Your task to perform on an android device: Search for "logitech g502" on costco.com, select the first entry, add it to the cart, then select checkout. Image 0: 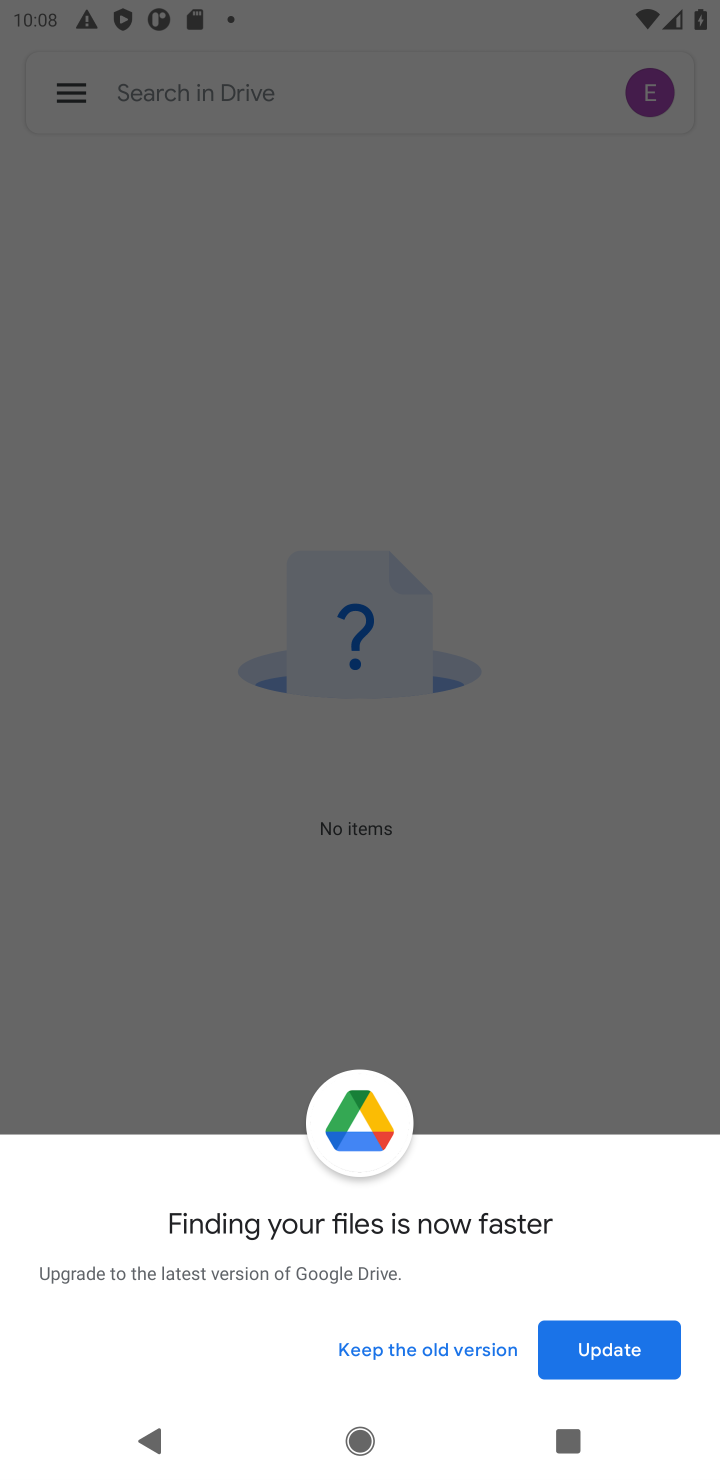
Step 0: press home button
Your task to perform on an android device: Search for "logitech g502" on costco.com, select the first entry, add it to the cart, then select checkout. Image 1: 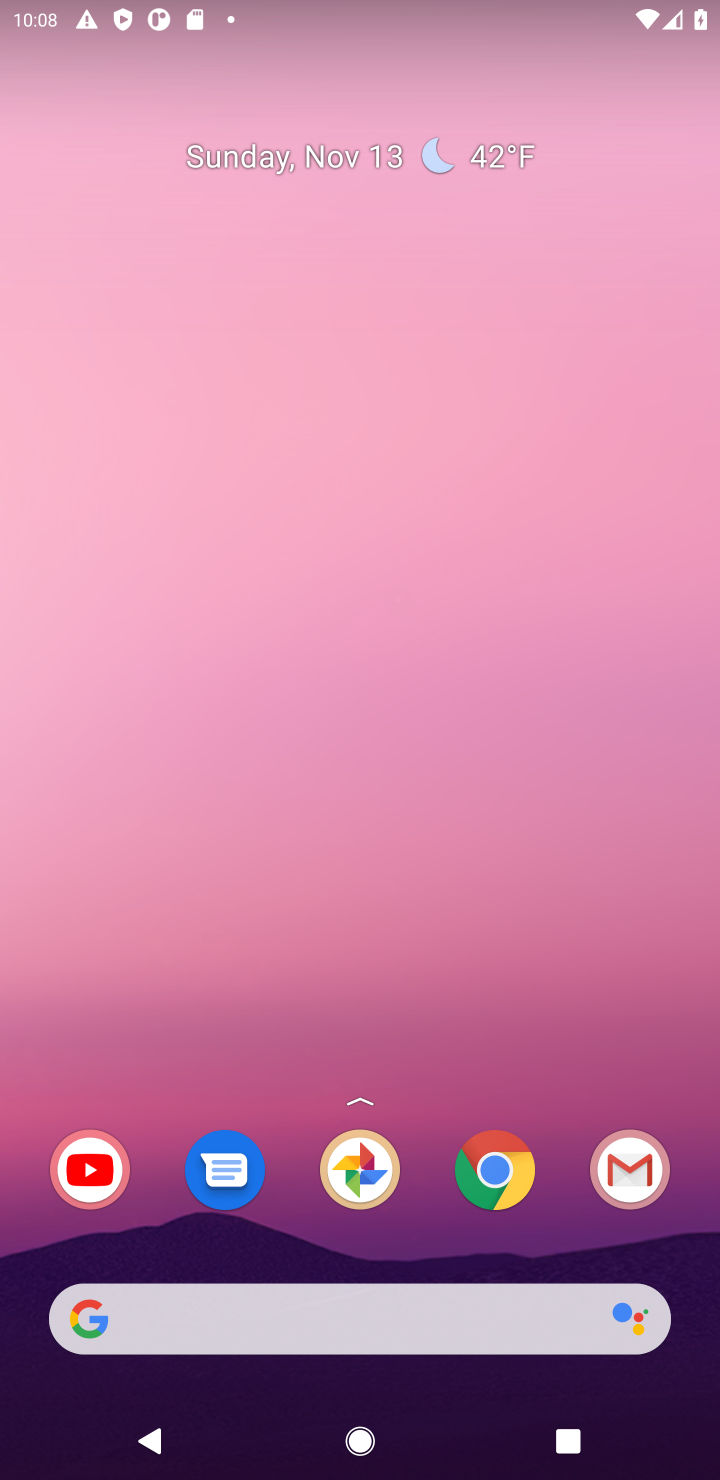
Step 1: drag from (399, 855) to (600, 19)
Your task to perform on an android device: Search for "logitech g502" on costco.com, select the first entry, add it to the cart, then select checkout. Image 2: 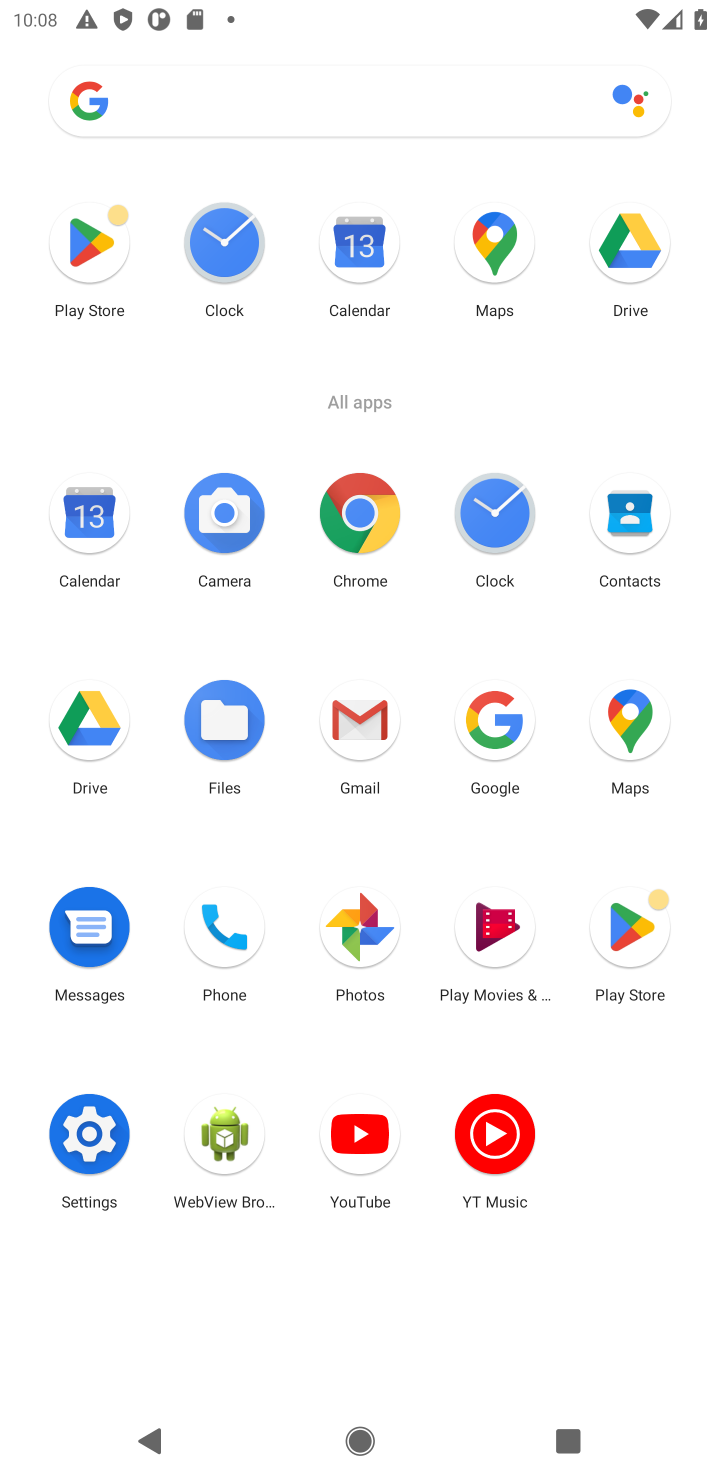
Step 2: click (326, 521)
Your task to perform on an android device: Search for "logitech g502" on costco.com, select the first entry, add it to the cart, then select checkout. Image 3: 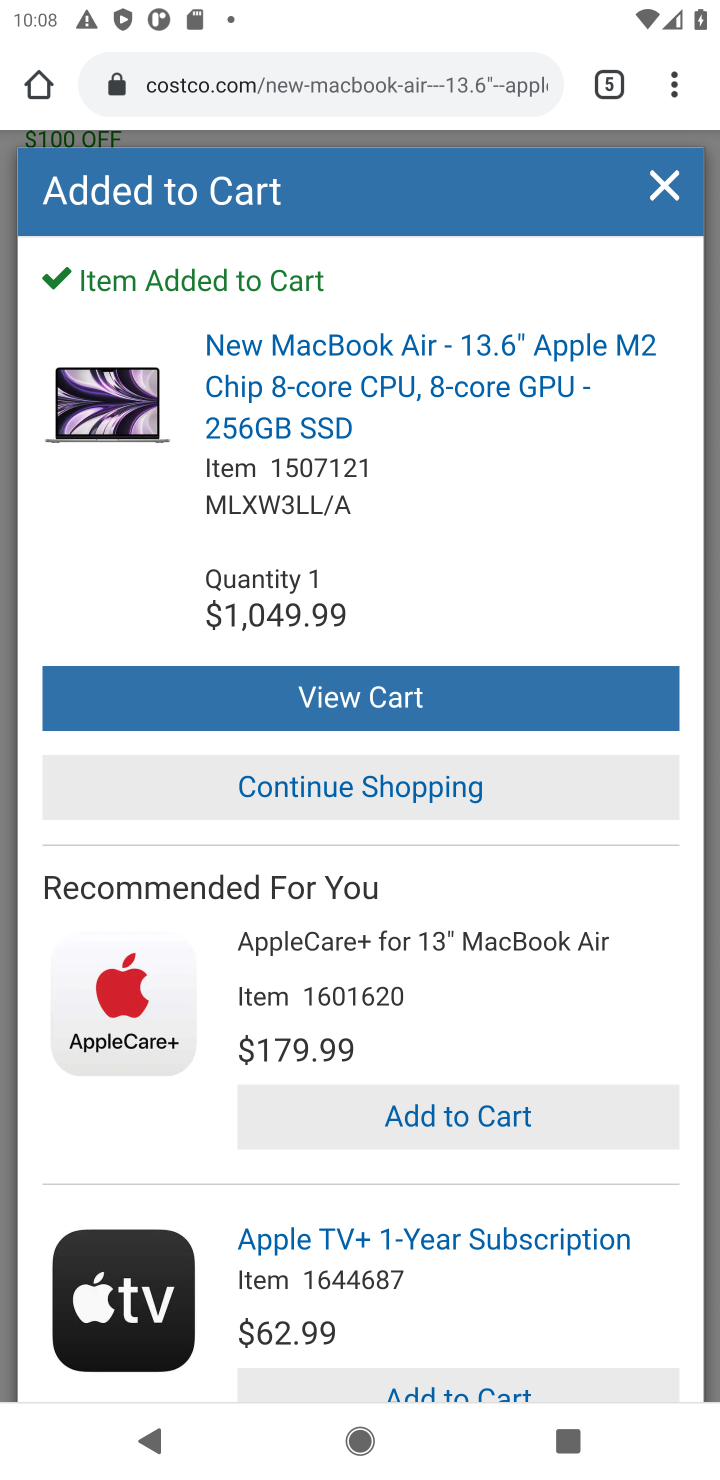
Step 3: click (319, 110)
Your task to perform on an android device: Search for "logitech g502" on costco.com, select the first entry, add it to the cart, then select checkout. Image 4: 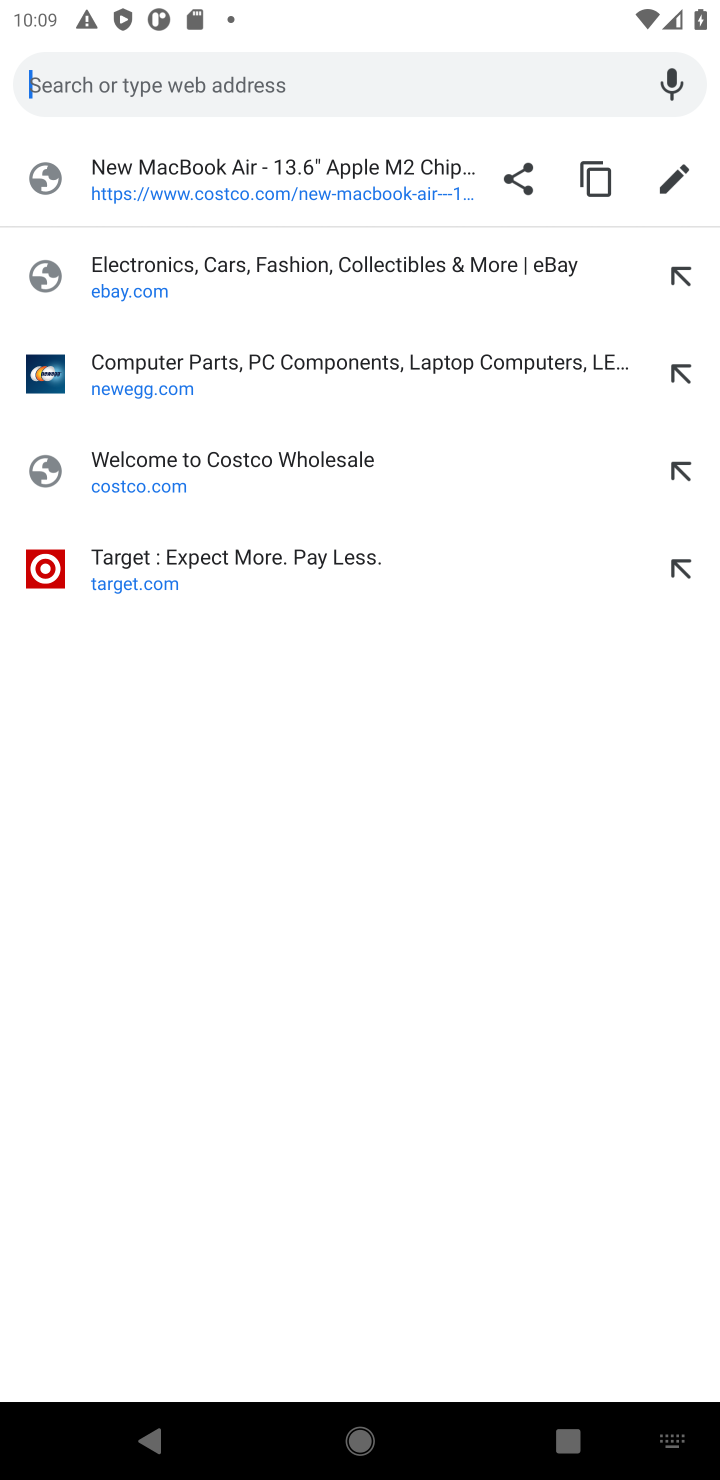
Step 4: type " costco.com"
Your task to perform on an android device: Search for "logitech g502" on costco.com, select the first entry, add it to the cart, then select checkout. Image 5: 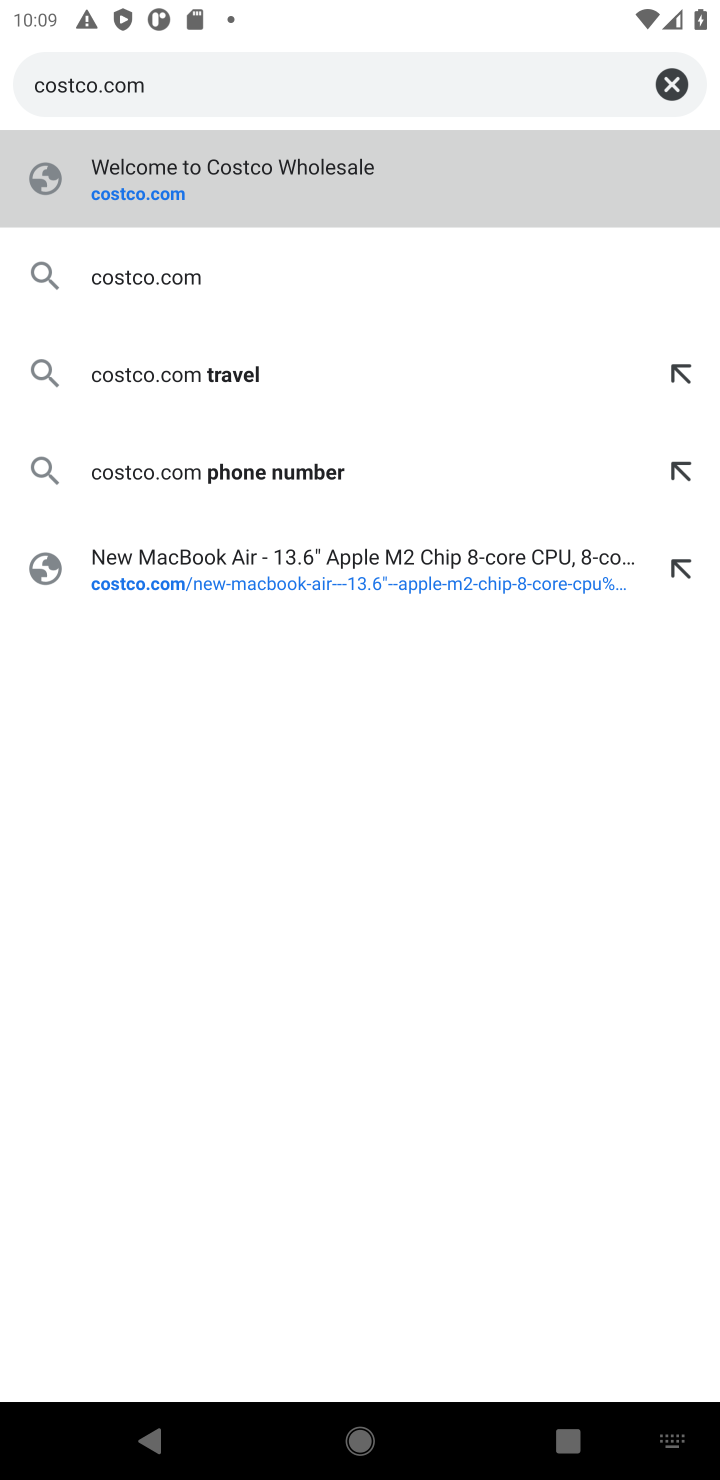
Step 5: press enter
Your task to perform on an android device: Search for "logitech g502" on costco.com, select the first entry, add it to the cart, then select checkout. Image 6: 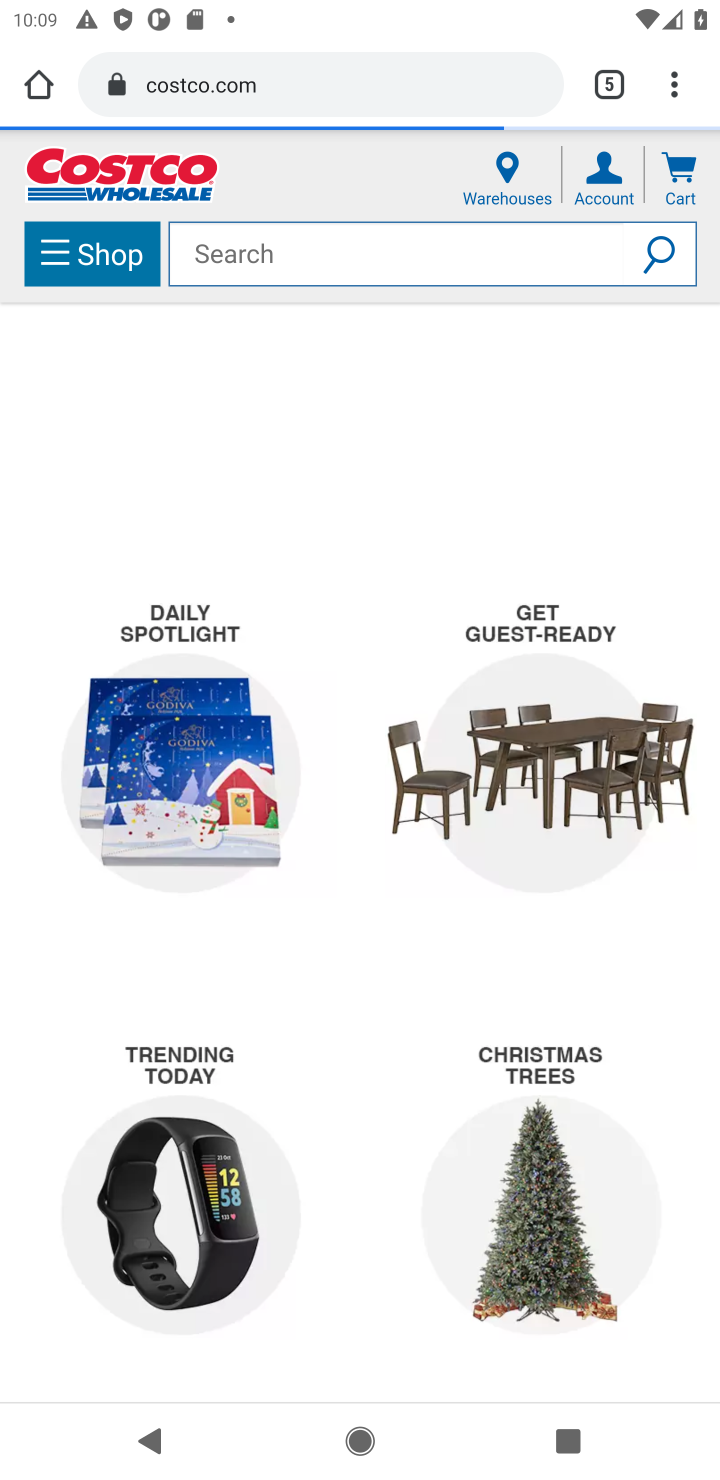
Step 6: click (237, 265)
Your task to perform on an android device: Search for "logitech g502" on costco.com, select the first entry, add it to the cart, then select checkout. Image 7: 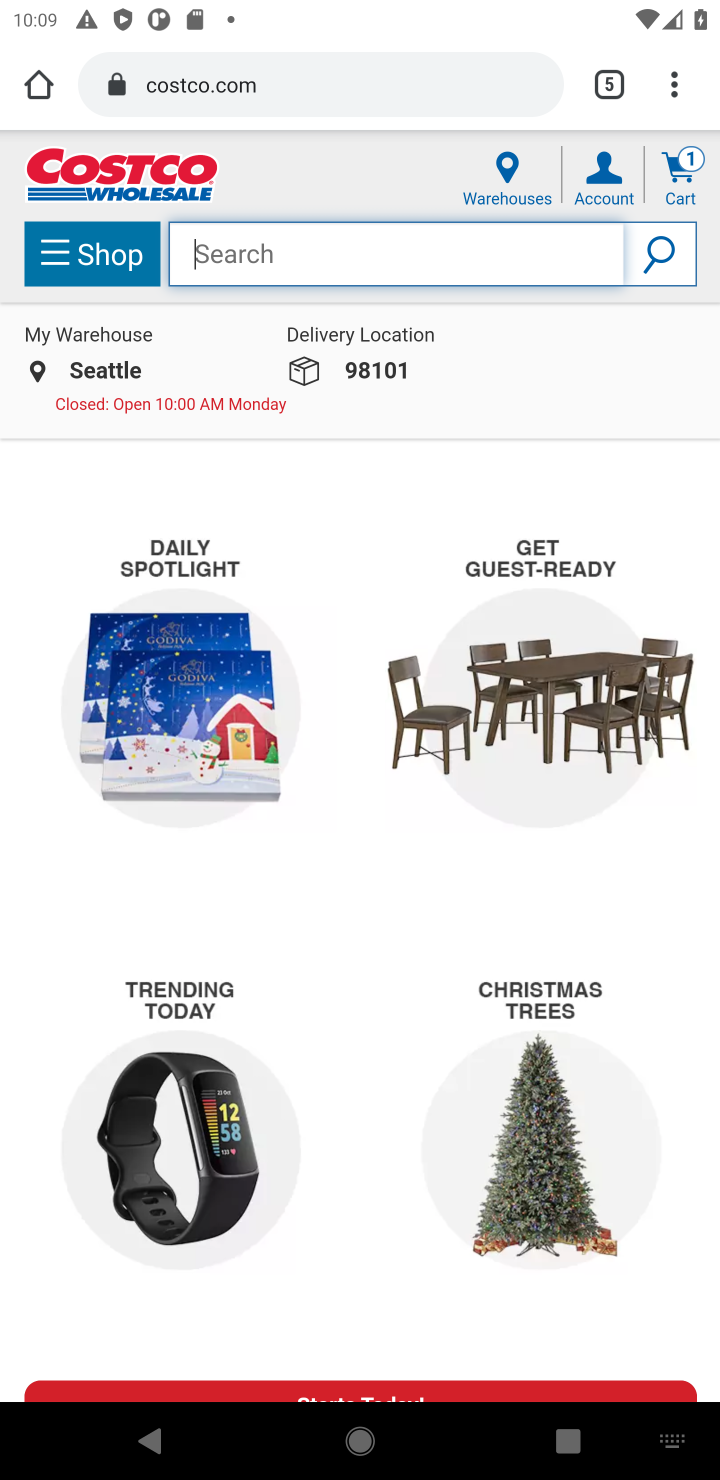
Step 7: type "logitech g502"
Your task to perform on an android device: Search for "logitech g502" on costco.com, select the first entry, add it to the cart, then select checkout. Image 8: 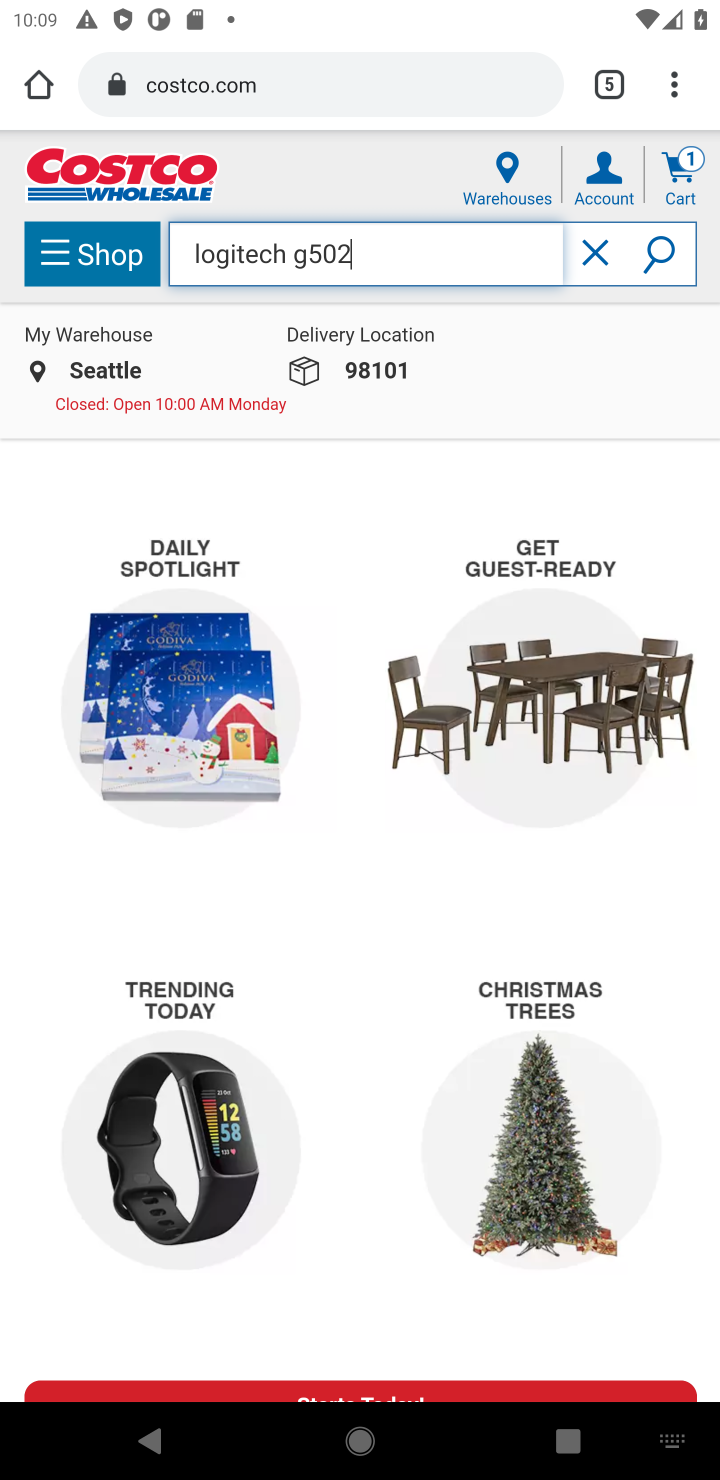
Step 8: press enter
Your task to perform on an android device: Search for "logitech g502" on costco.com, select the first entry, add it to the cart, then select checkout. Image 9: 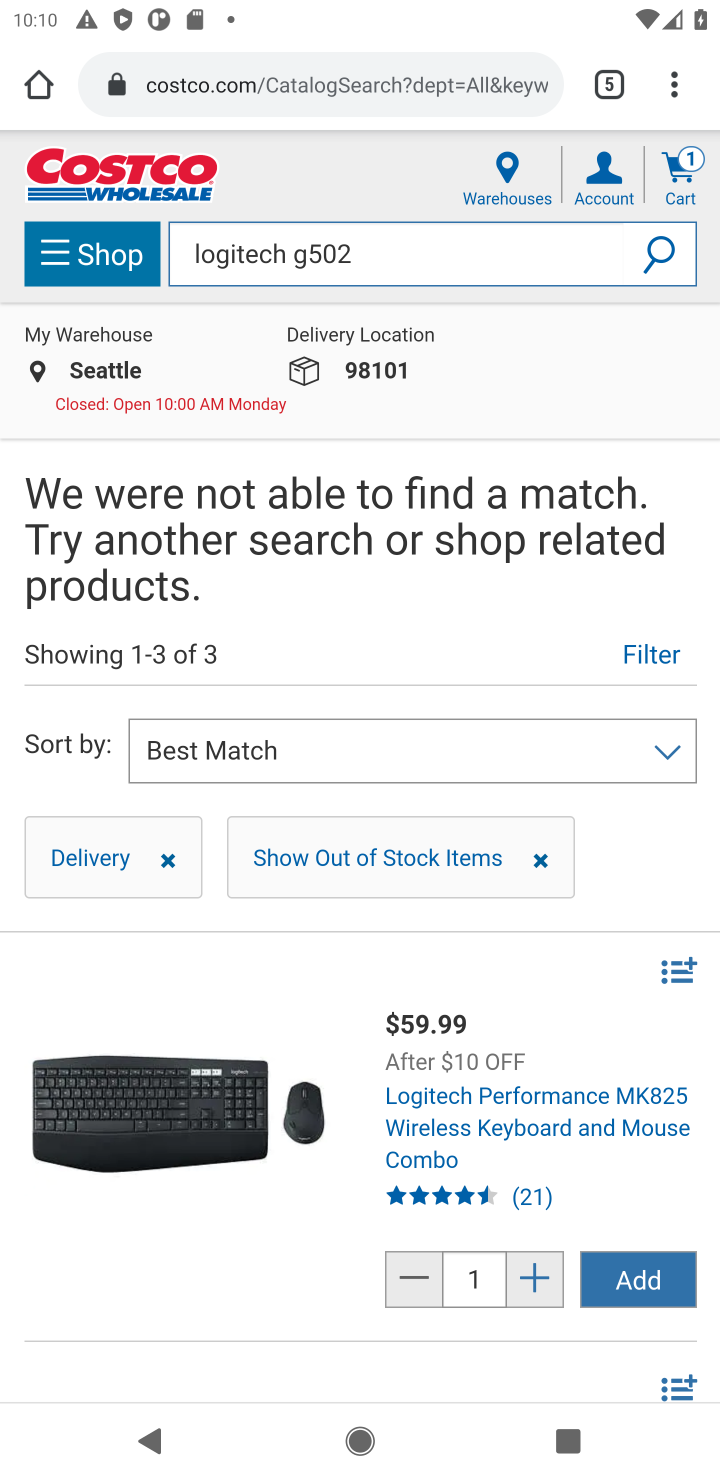
Step 9: click (659, 1264)
Your task to perform on an android device: Search for "logitech g502" on costco.com, select the first entry, add it to the cart, then select checkout. Image 10: 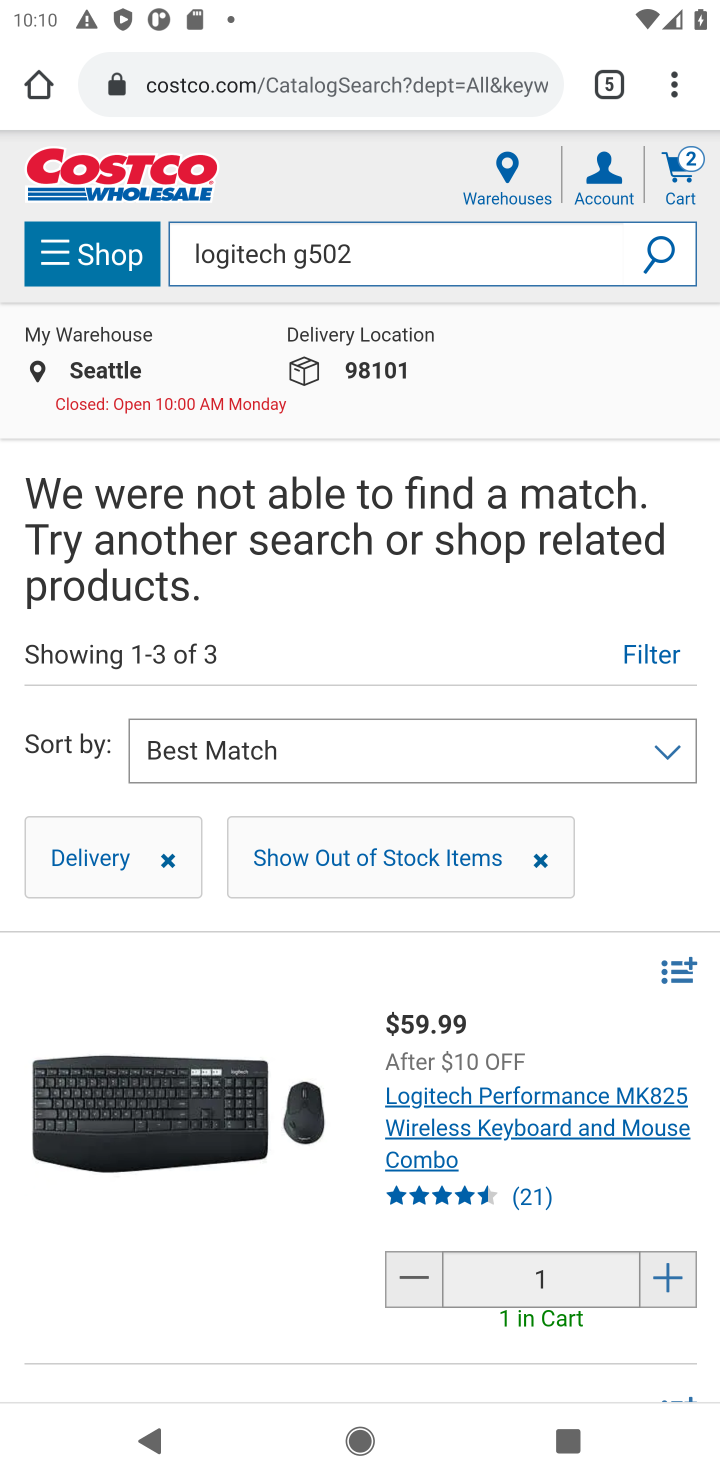
Step 10: click (672, 160)
Your task to perform on an android device: Search for "logitech g502" on costco.com, select the first entry, add it to the cart, then select checkout. Image 11: 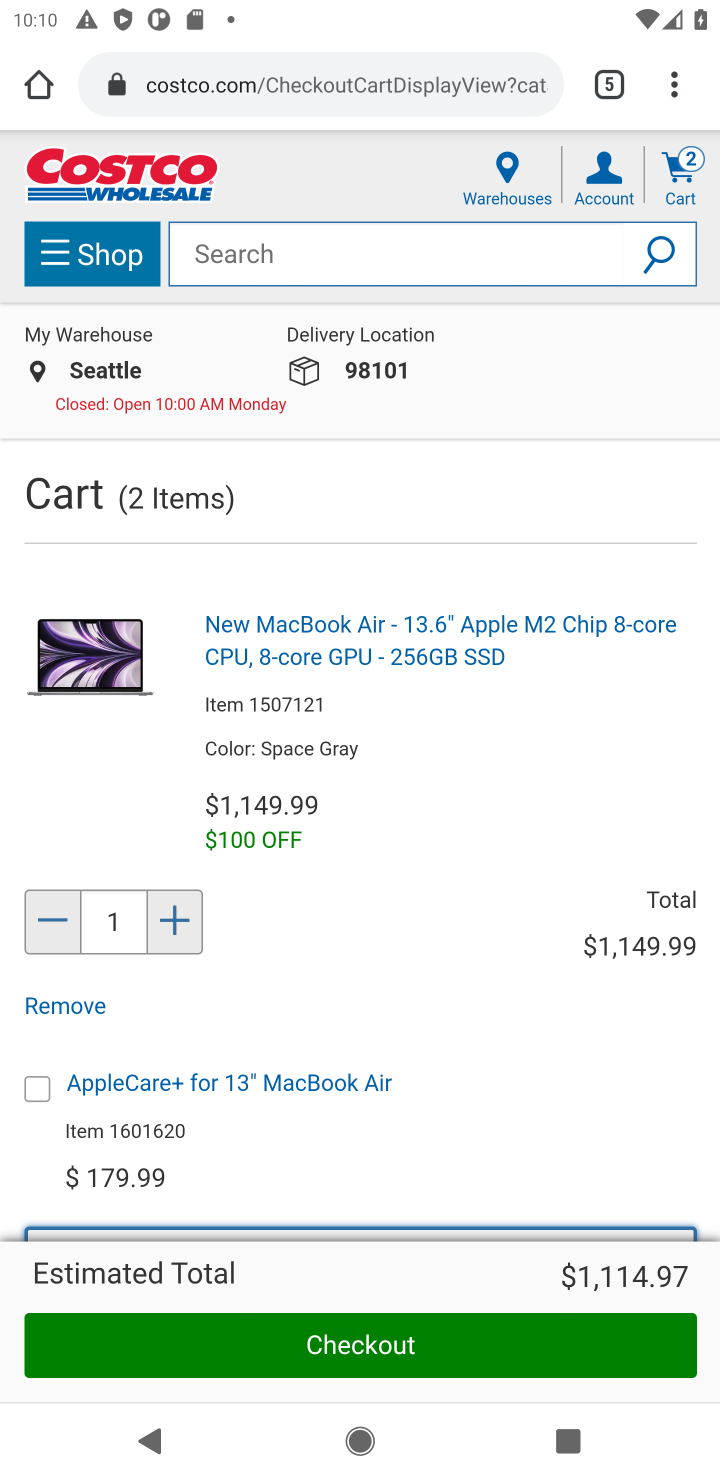
Step 11: click (378, 1362)
Your task to perform on an android device: Search for "logitech g502" on costco.com, select the first entry, add it to the cart, then select checkout. Image 12: 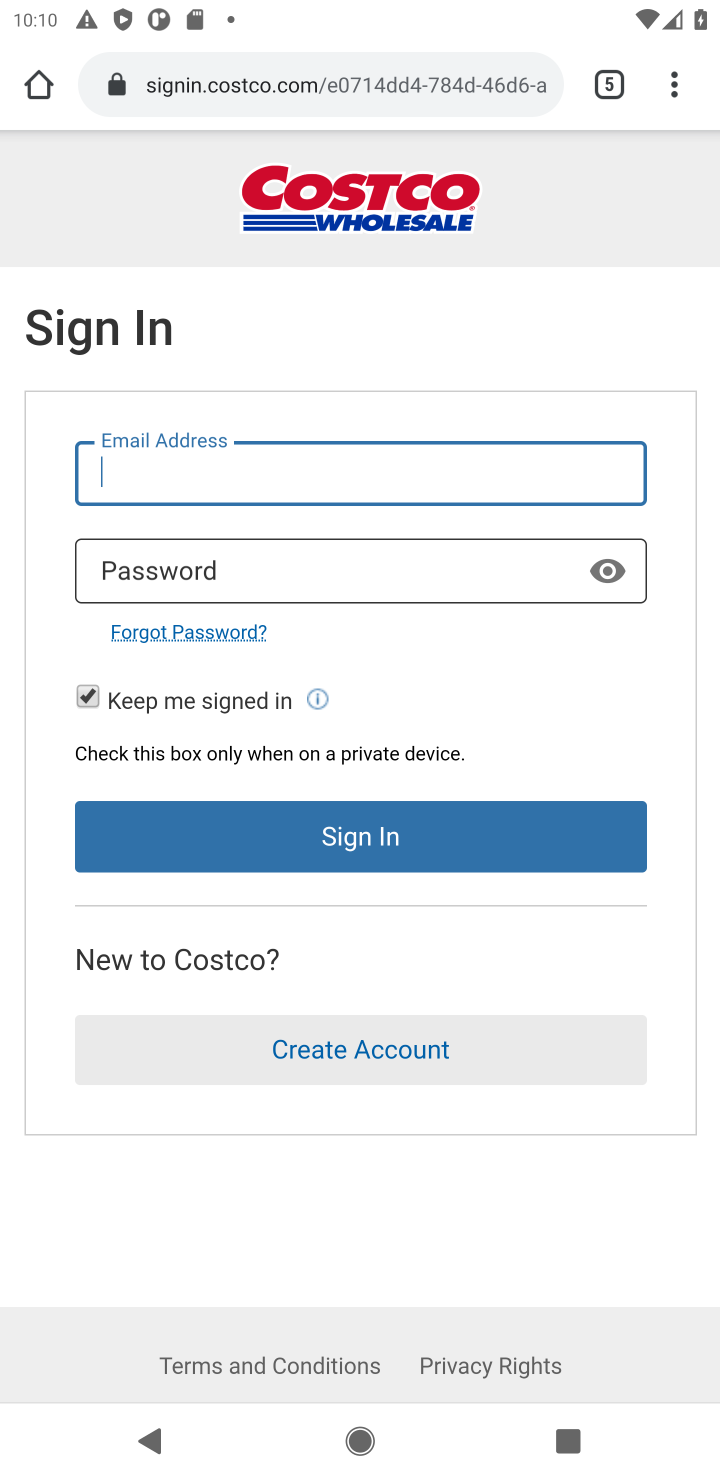
Step 12: task complete